Your task to perform on an android device: toggle javascript in the chrome app Image 0: 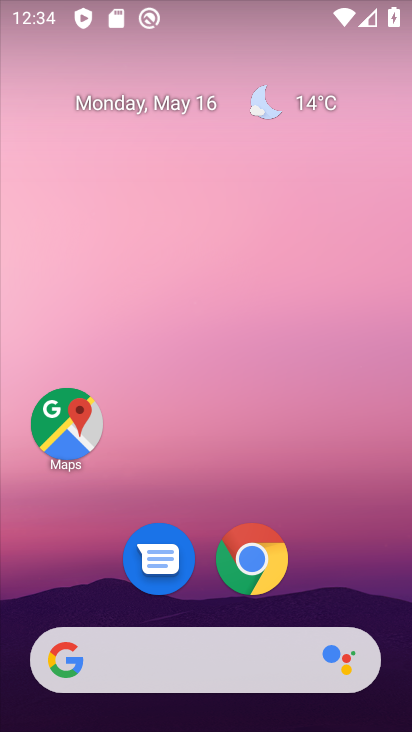
Step 0: drag from (369, 529) to (291, 0)
Your task to perform on an android device: toggle javascript in the chrome app Image 1: 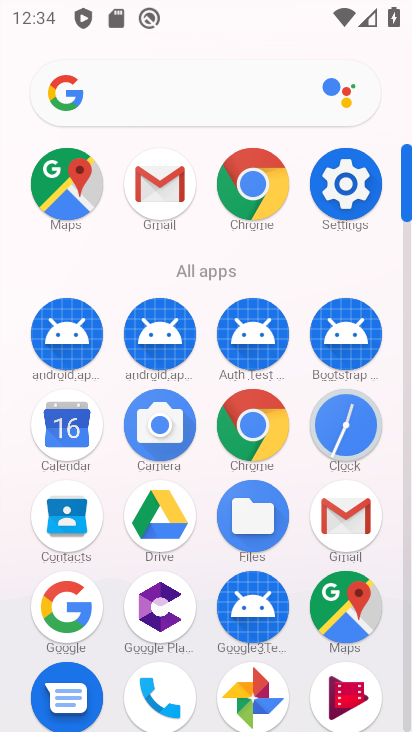
Step 1: click (234, 194)
Your task to perform on an android device: toggle javascript in the chrome app Image 2: 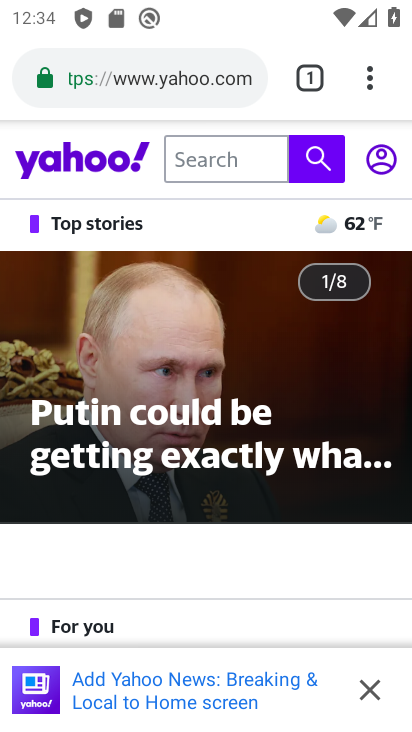
Step 2: drag from (374, 73) to (163, 610)
Your task to perform on an android device: toggle javascript in the chrome app Image 3: 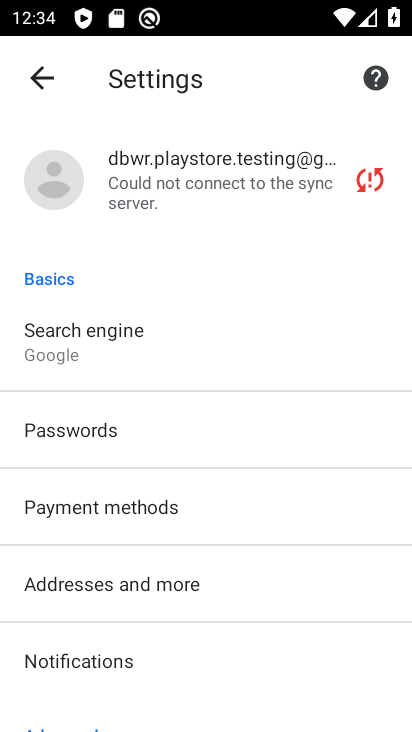
Step 3: drag from (123, 600) to (174, 153)
Your task to perform on an android device: toggle javascript in the chrome app Image 4: 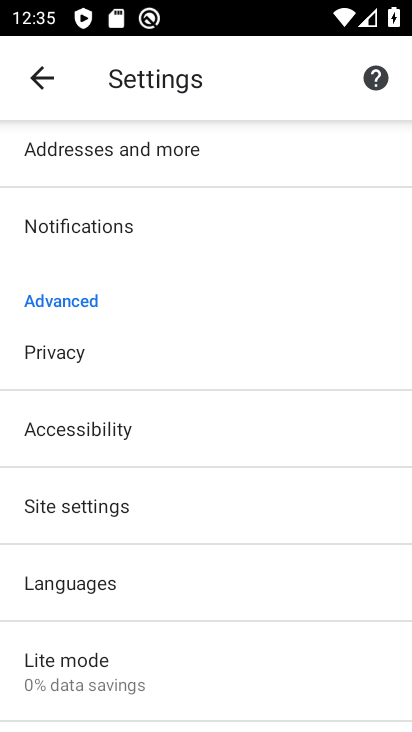
Step 4: click (113, 492)
Your task to perform on an android device: toggle javascript in the chrome app Image 5: 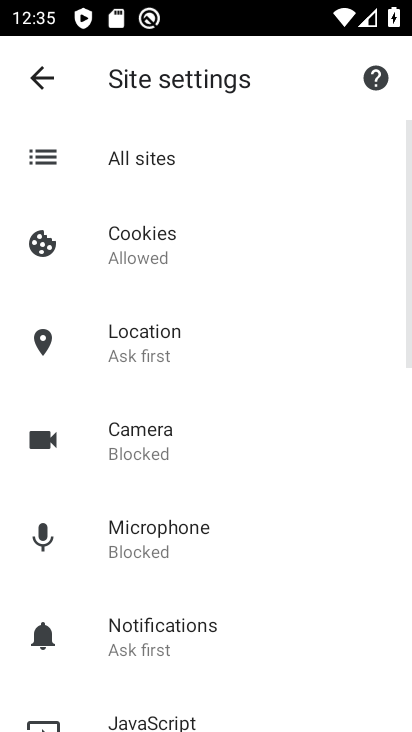
Step 5: drag from (159, 595) to (189, 212)
Your task to perform on an android device: toggle javascript in the chrome app Image 6: 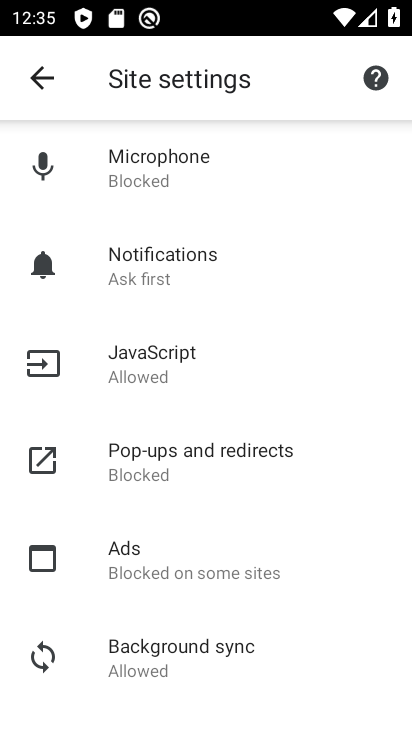
Step 6: click (139, 366)
Your task to perform on an android device: toggle javascript in the chrome app Image 7: 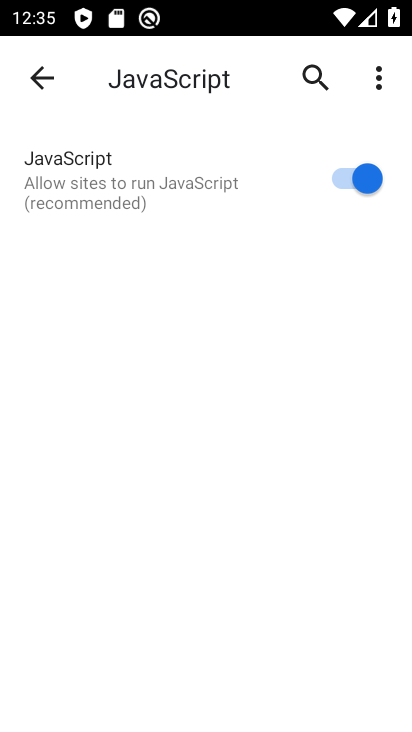
Step 7: task complete